Your task to perform on an android device: Is it going to rain this weekend? Image 0: 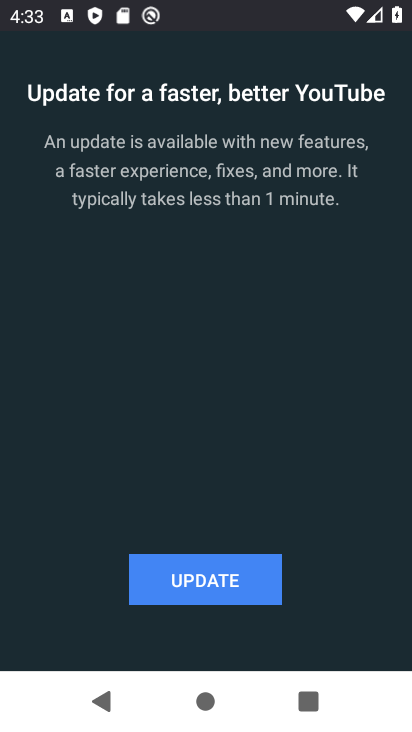
Step 0: press home button
Your task to perform on an android device: Is it going to rain this weekend? Image 1: 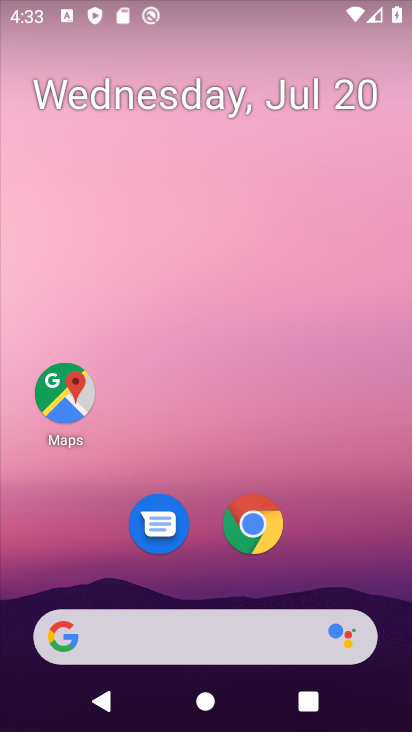
Step 1: click (231, 640)
Your task to perform on an android device: Is it going to rain this weekend? Image 2: 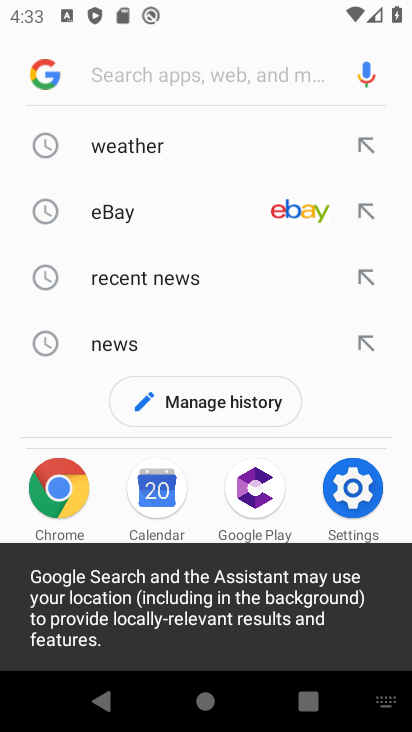
Step 2: click (127, 142)
Your task to perform on an android device: Is it going to rain this weekend? Image 3: 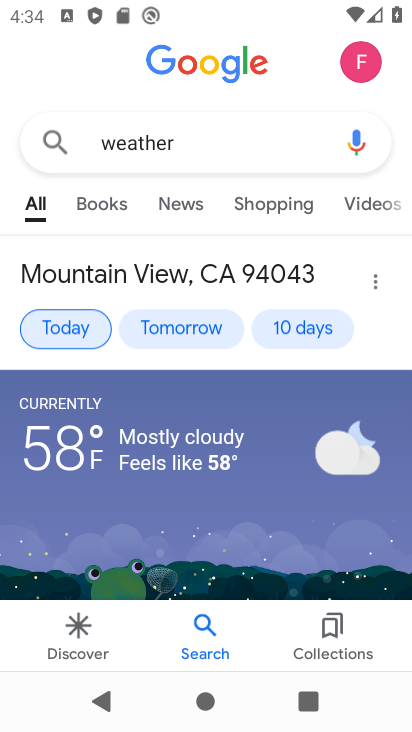
Step 3: click (86, 327)
Your task to perform on an android device: Is it going to rain this weekend? Image 4: 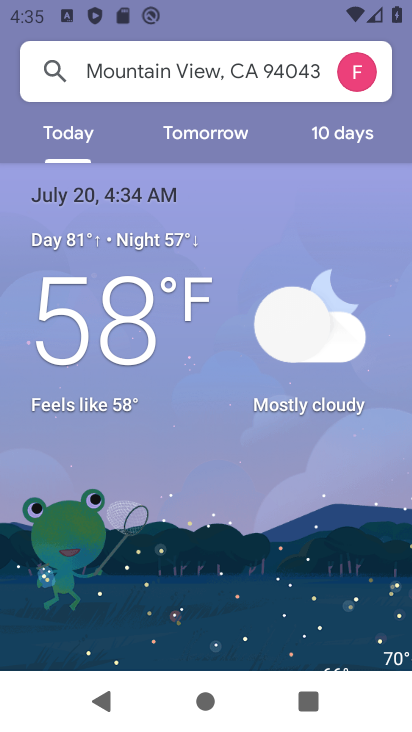
Step 4: drag from (247, 546) to (327, 381)
Your task to perform on an android device: Is it going to rain this weekend? Image 5: 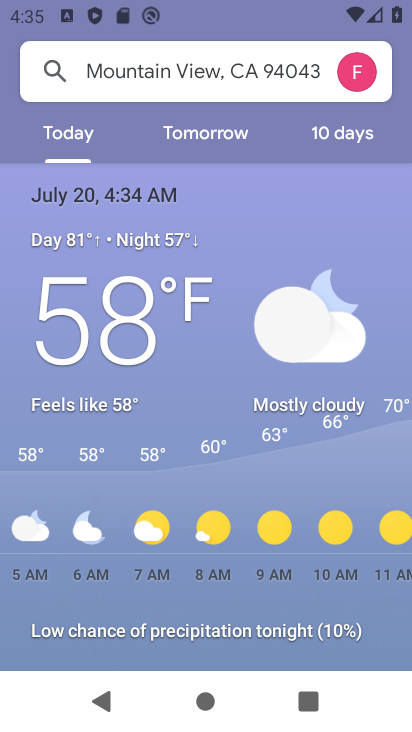
Step 5: click (329, 141)
Your task to perform on an android device: Is it going to rain this weekend? Image 6: 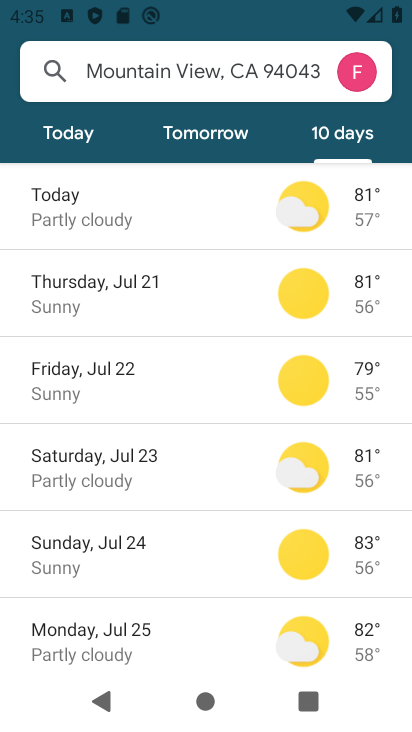
Step 6: click (151, 471)
Your task to perform on an android device: Is it going to rain this weekend? Image 7: 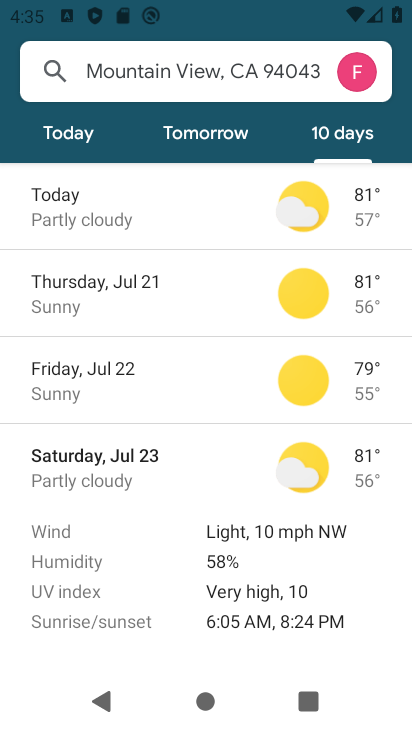
Step 7: task complete